Your task to perform on an android device: turn on translation in the chrome app Image 0: 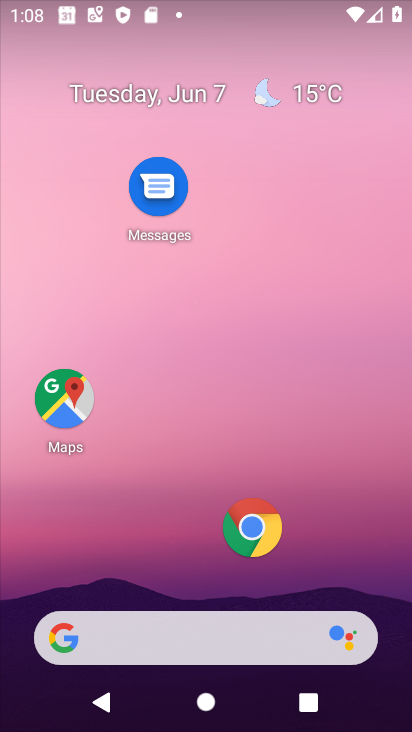
Step 0: click (249, 533)
Your task to perform on an android device: turn on translation in the chrome app Image 1: 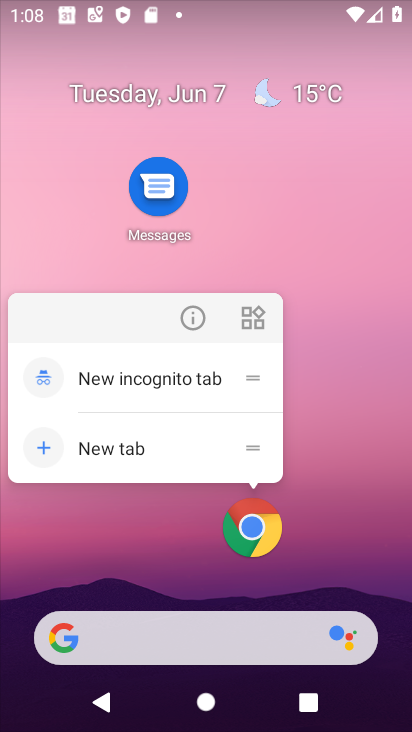
Step 1: click (250, 534)
Your task to perform on an android device: turn on translation in the chrome app Image 2: 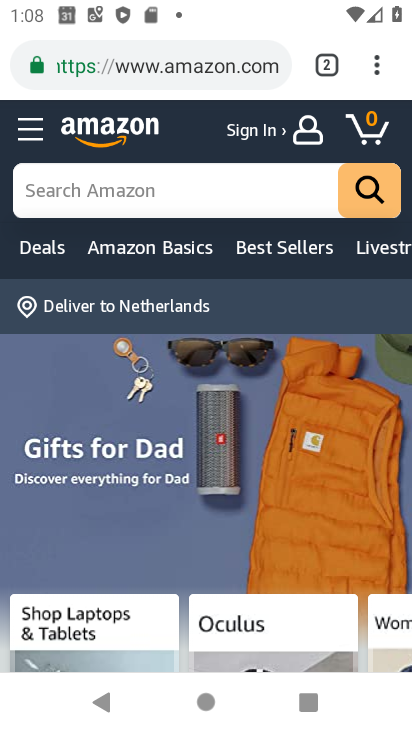
Step 2: click (376, 62)
Your task to perform on an android device: turn on translation in the chrome app Image 3: 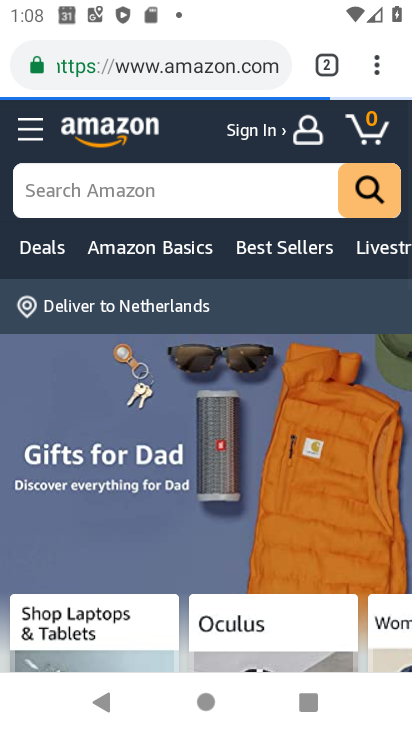
Step 3: click (376, 62)
Your task to perform on an android device: turn on translation in the chrome app Image 4: 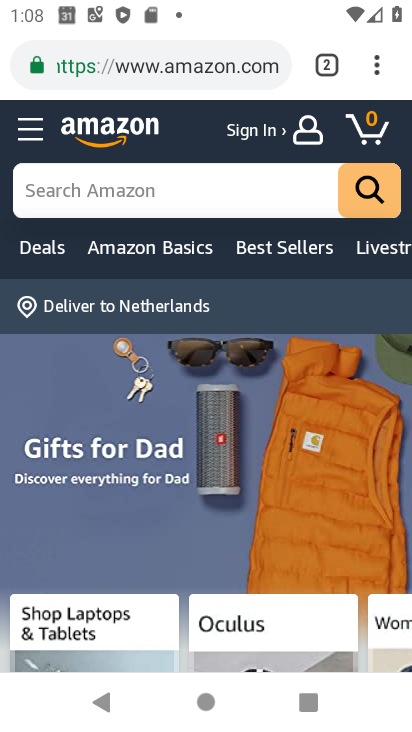
Step 4: click (383, 66)
Your task to perform on an android device: turn on translation in the chrome app Image 5: 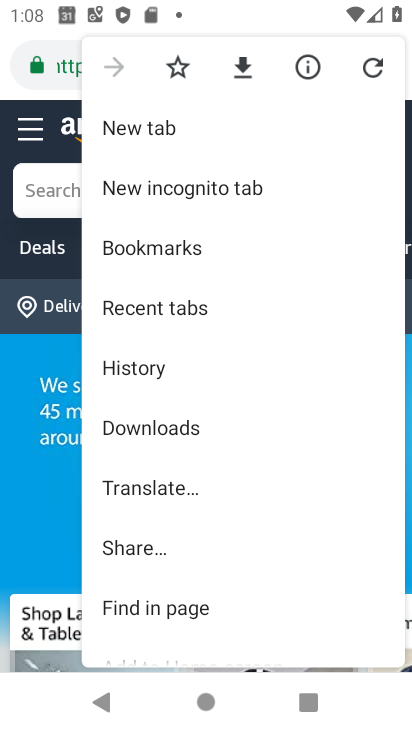
Step 5: drag from (213, 596) to (240, 275)
Your task to perform on an android device: turn on translation in the chrome app Image 6: 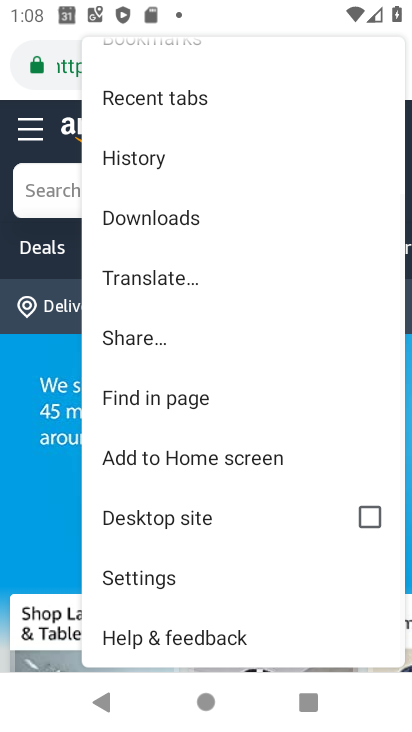
Step 6: click (126, 581)
Your task to perform on an android device: turn on translation in the chrome app Image 7: 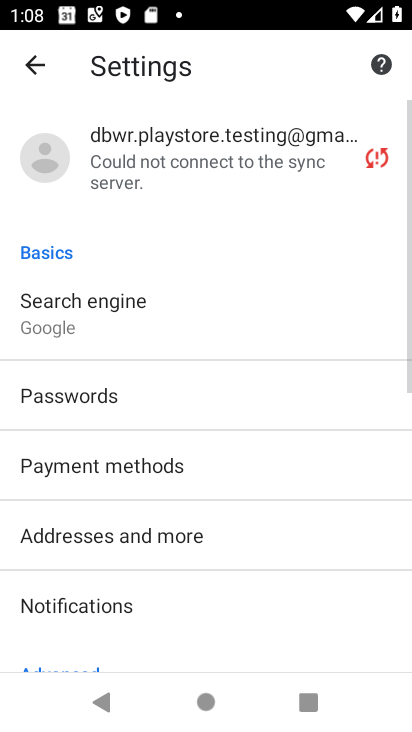
Step 7: drag from (159, 641) to (201, 296)
Your task to perform on an android device: turn on translation in the chrome app Image 8: 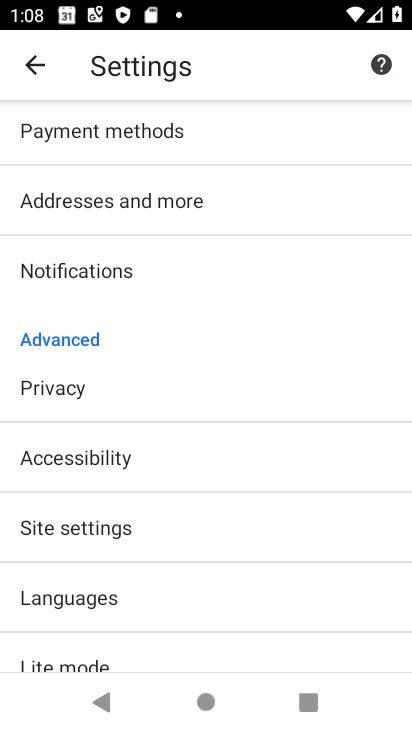
Step 8: click (106, 603)
Your task to perform on an android device: turn on translation in the chrome app Image 9: 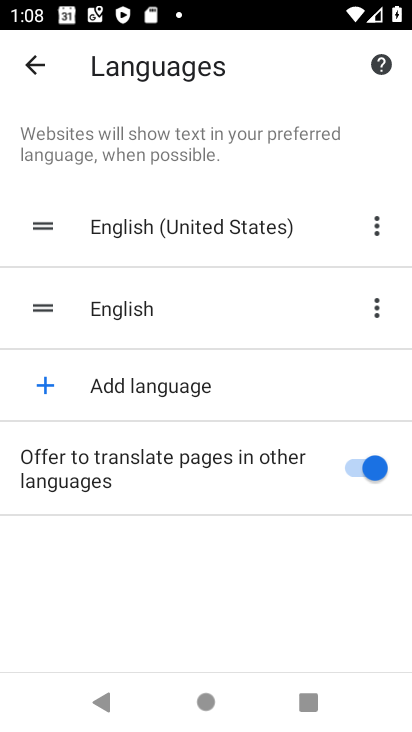
Step 9: task complete